Your task to perform on an android device: change keyboard looks Image 0: 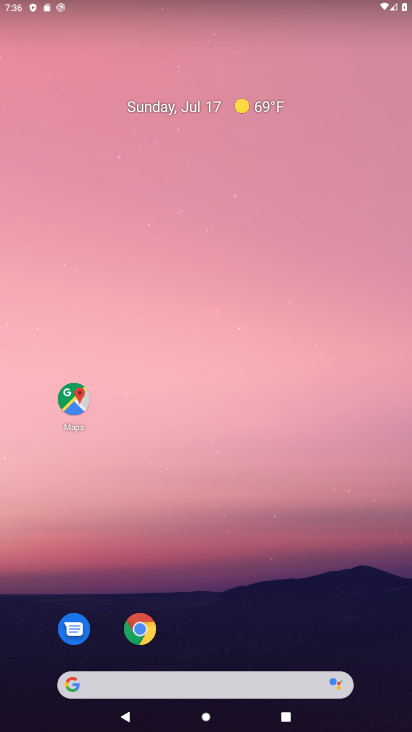
Step 0: drag from (203, 631) to (193, 158)
Your task to perform on an android device: change keyboard looks Image 1: 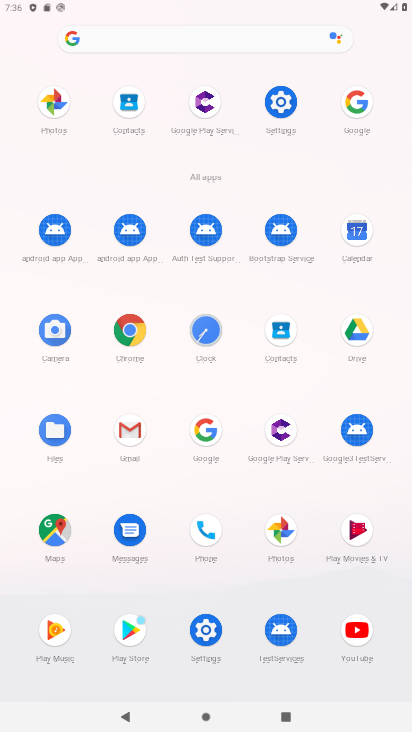
Step 1: click (282, 100)
Your task to perform on an android device: change keyboard looks Image 2: 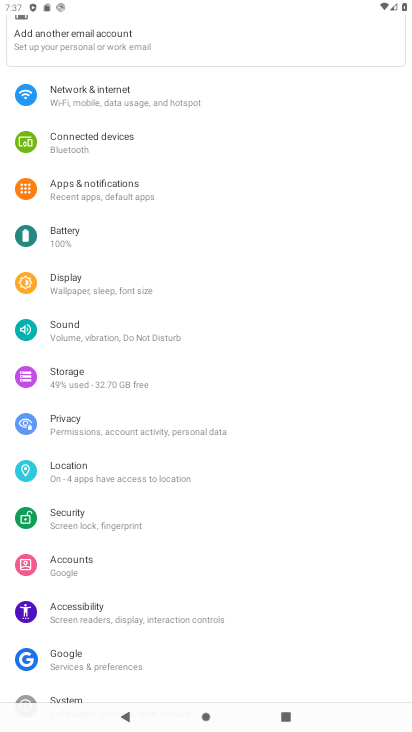
Step 2: drag from (121, 678) to (116, 297)
Your task to perform on an android device: change keyboard looks Image 3: 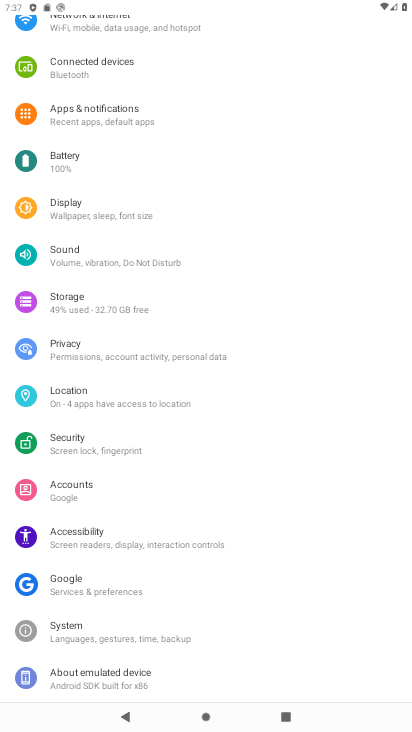
Step 3: click (78, 621)
Your task to perform on an android device: change keyboard looks Image 4: 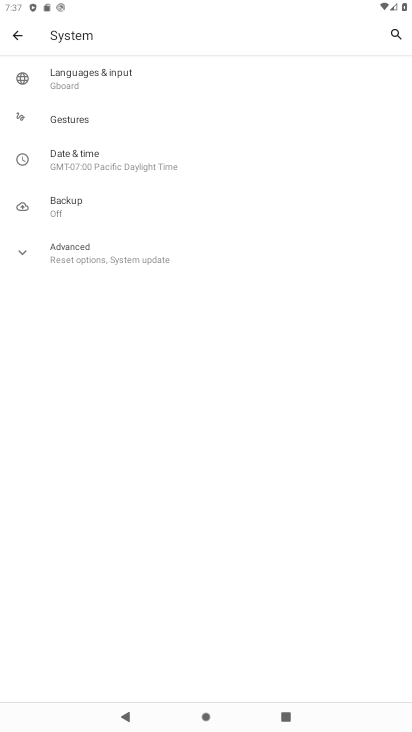
Step 4: click (64, 74)
Your task to perform on an android device: change keyboard looks Image 5: 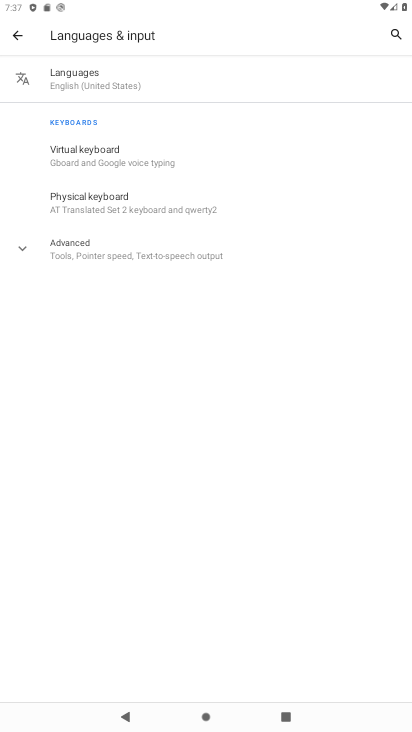
Step 5: click (80, 156)
Your task to perform on an android device: change keyboard looks Image 6: 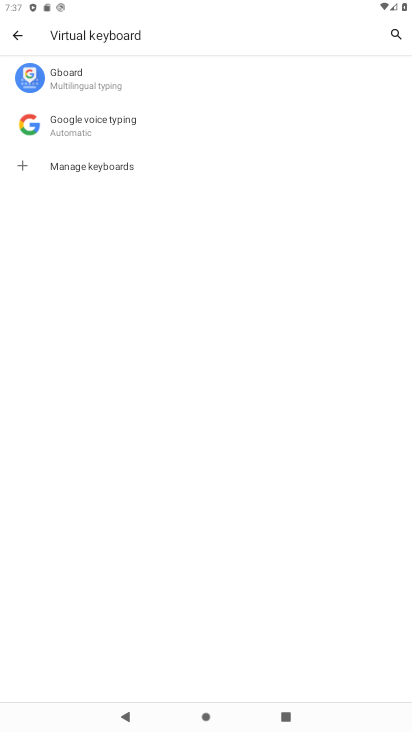
Step 6: click (78, 72)
Your task to perform on an android device: change keyboard looks Image 7: 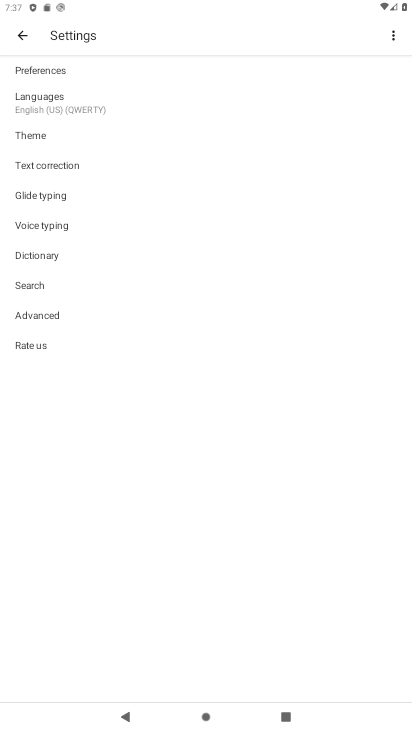
Step 7: click (35, 135)
Your task to perform on an android device: change keyboard looks Image 8: 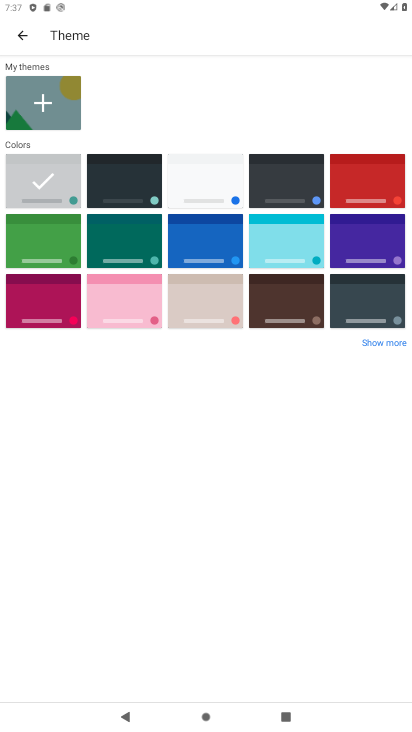
Step 8: click (119, 190)
Your task to perform on an android device: change keyboard looks Image 9: 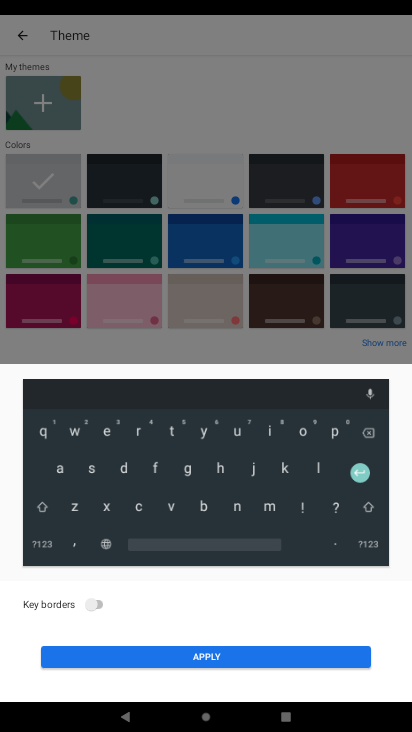
Step 9: click (202, 659)
Your task to perform on an android device: change keyboard looks Image 10: 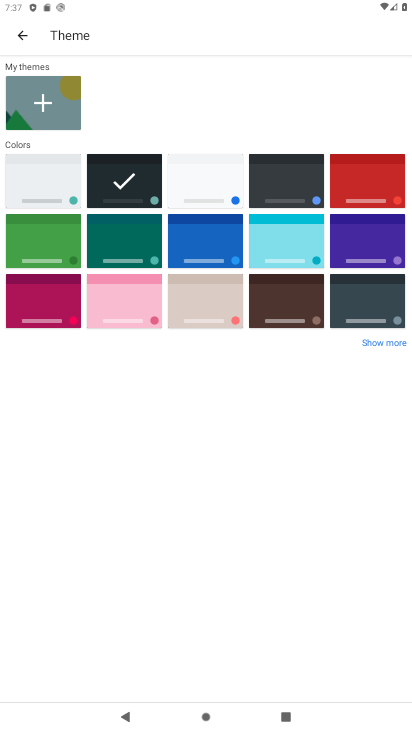
Step 10: task complete